Your task to perform on an android device: check battery use Image 0: 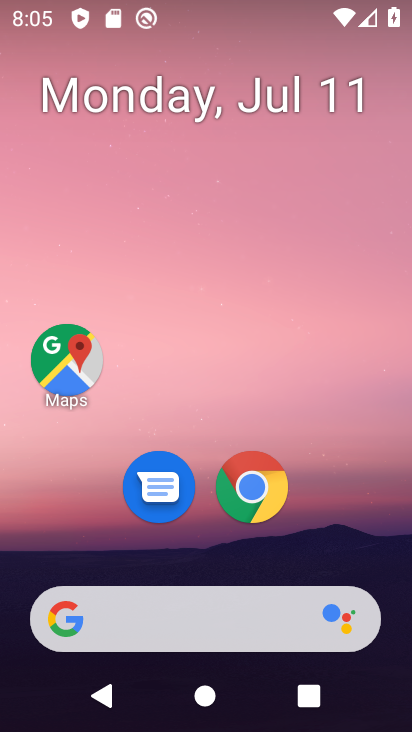
Step 0: drag from (189, 592) to (297, 1)
Your task to perform on an android device: check battery use Image 1: 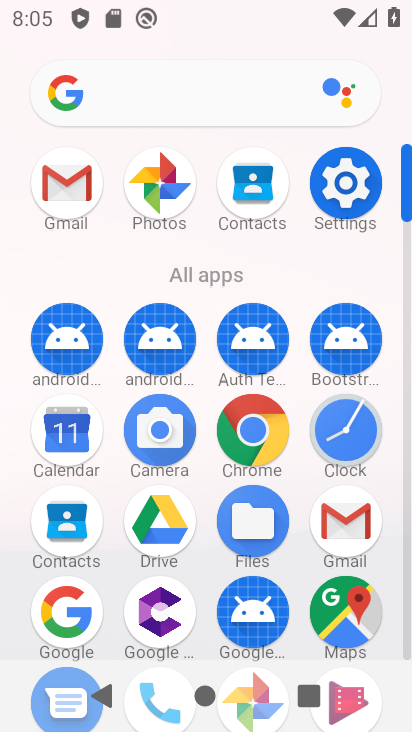
Step 1: click (337, 183)
Your task to perform on an android device: check battery use Image 2: 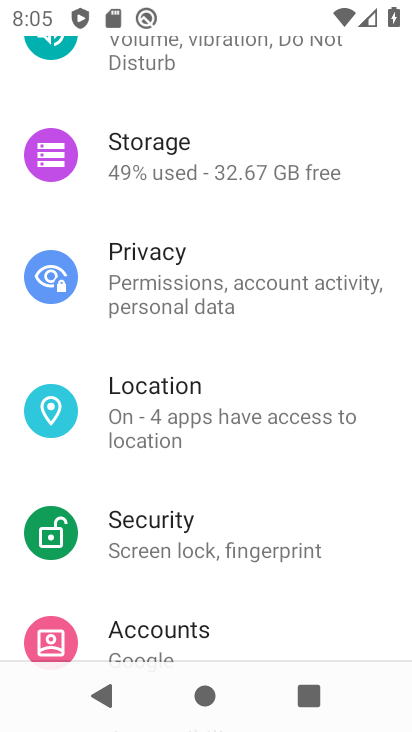
Step 2: drag from (231, 142) to (128, 636)
Your task to perform on an android device: check battery use Image 3: 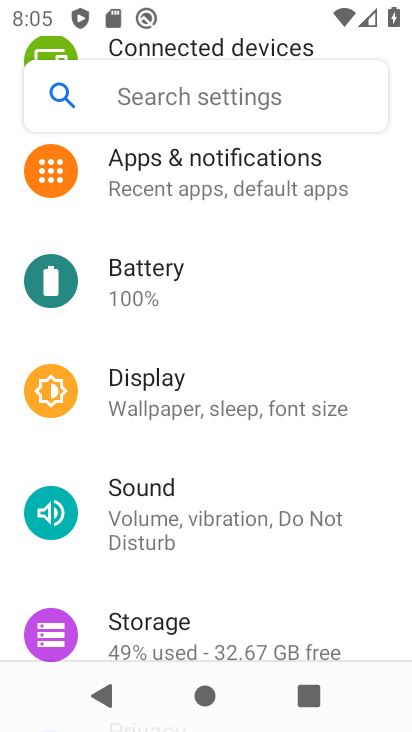
Step 3: click (157, 263)
Your task to perform on an android device: check battery use Image 4: 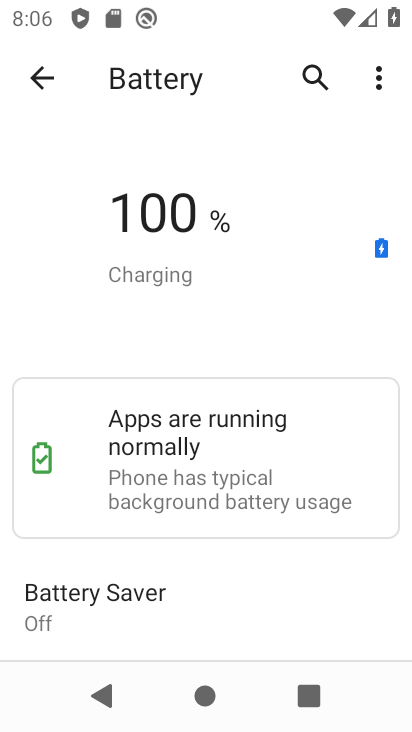
Step 4: click (382, 69)
Your task to perform on an android device: check battery use Image 5: 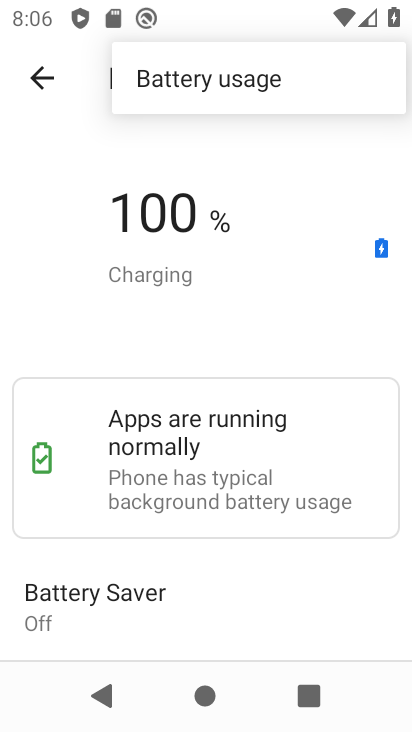
Step 5: click (332, 80)
Your task to perform on an android device: check battery use Image 6: 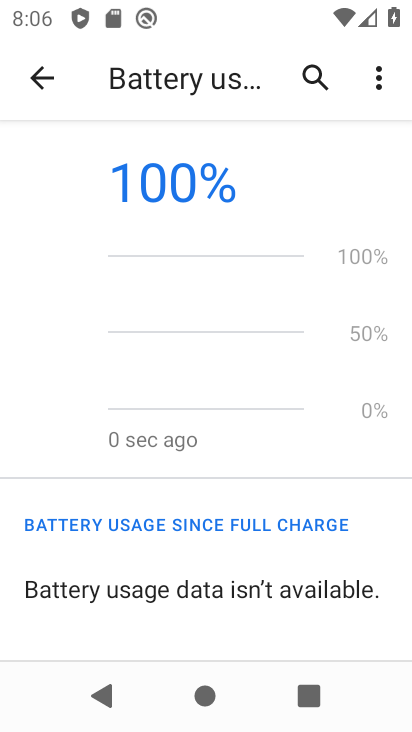
Step 6: task complete